Your task to perform on an android device: empty trash in the gmail app Image 0: 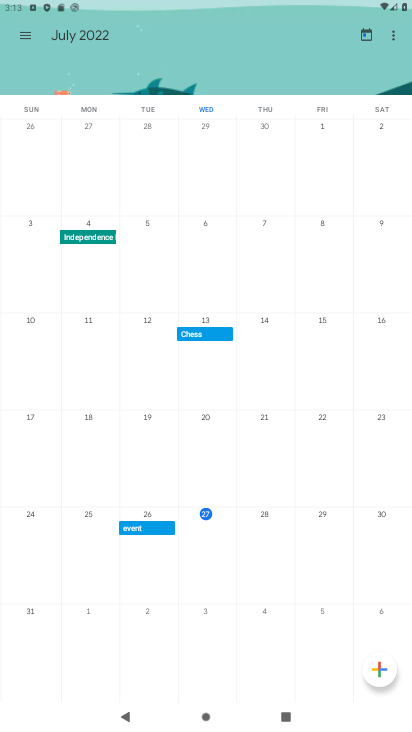
Step 0: press home button
Your task to perform on an android device: empty trash in the gmail app Image 1: 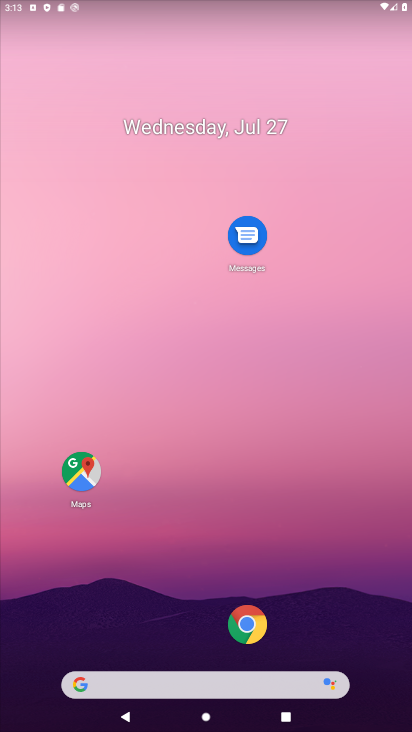
Step 1: drag from (153, 633) to (26, 28)
Your task to perform on an android device: empty trash in the gmail app Image 2: 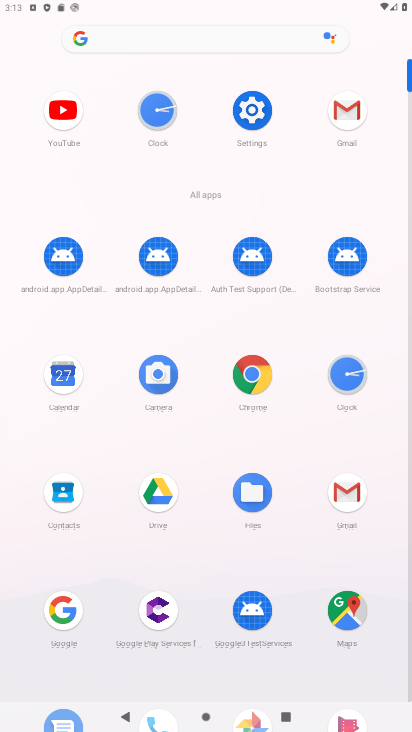
Step 2: click (347, 129)
Your task to perform on an android device: empty trash in the gmail app Image 3: 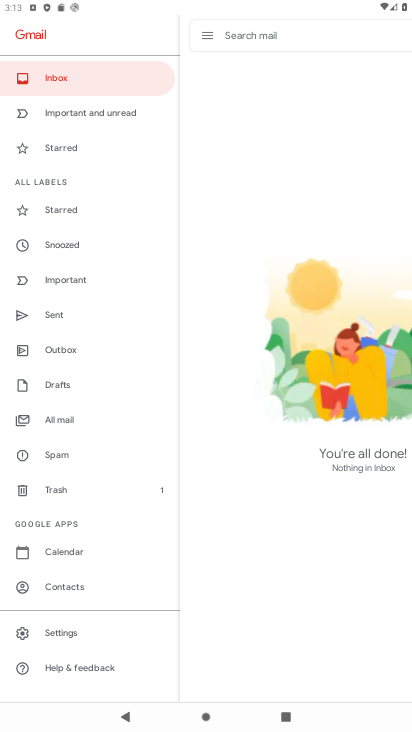
Step 3: click (58, 476)
Your task to perform on an android device: empty trash in the gmail app Image 4: 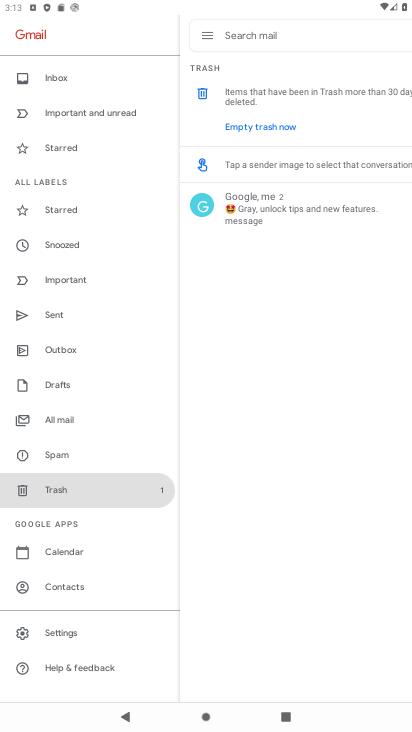
Step 4: click (233, 133)
Your task to perform on an android device: empty trash in the gmail app Image 5: 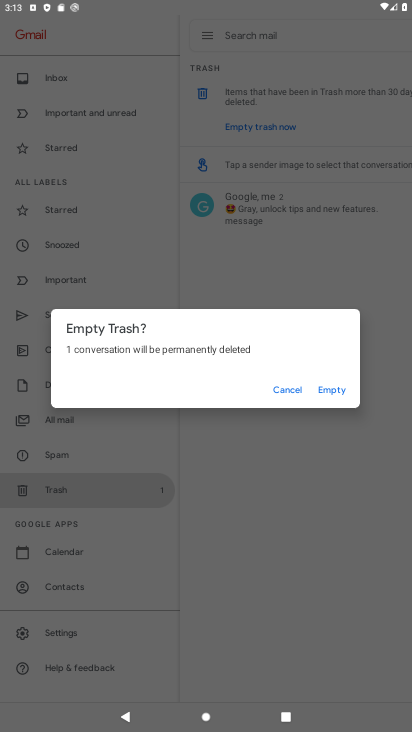
Step 5: click (316, 382)
Your task to perform on an android device: empty trash in the gmail app Image 6: 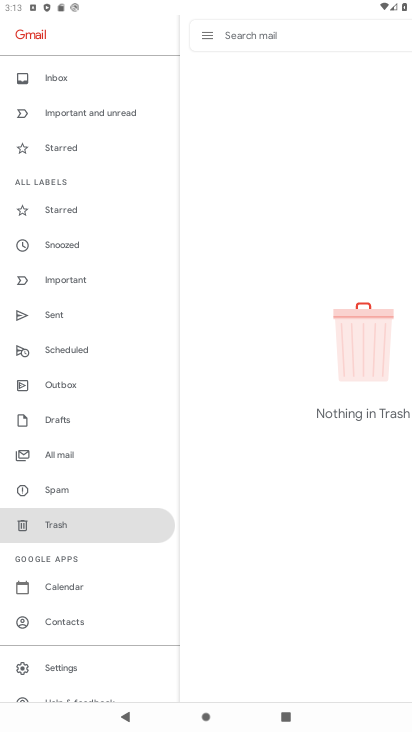
Step 6: task complete